Your task to perform on an android device: manage bookmarks in the chrome app Image 0: 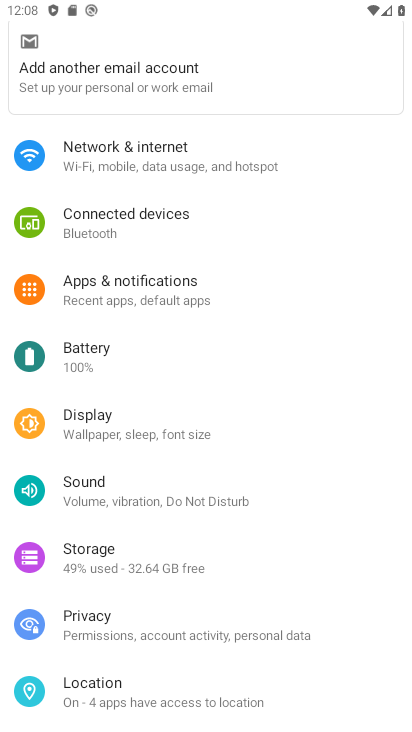
Step 0: press home button
Your task to perform on an android device: manage bookmarks in the chrome app Image 1: 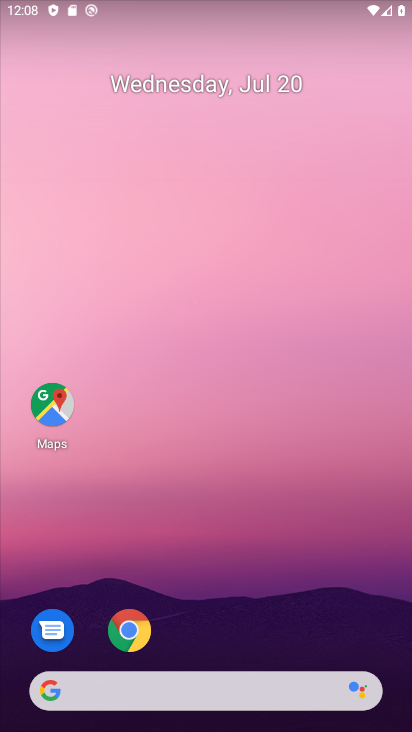
Step 1: click (126, 636)
Your task to perform on an android device: manage bookmarks in the chrome app Image 2: 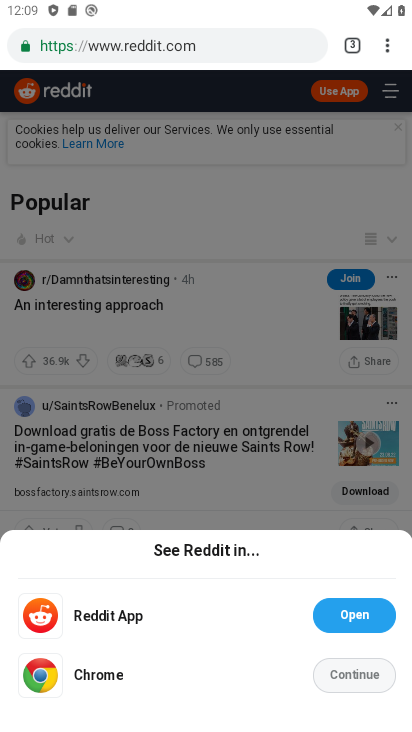
Step 2: click (385, 43)
Your task to perform on an android device: manage bookmarks in the chrome app Image 3: 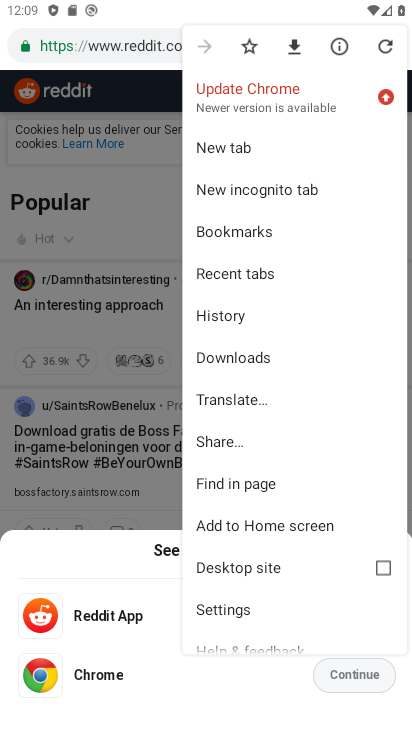
Step 3: click (238, 226)
Your task to perform on an android device: manage bookmarks in the chrome app Image 4: 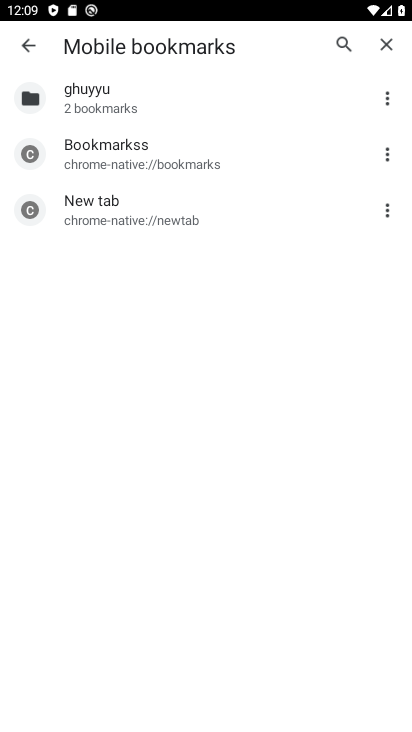
Step 4: click (389, 95)
Your task to perform on an android device: manage bookmarks in the chrome app Image 5: 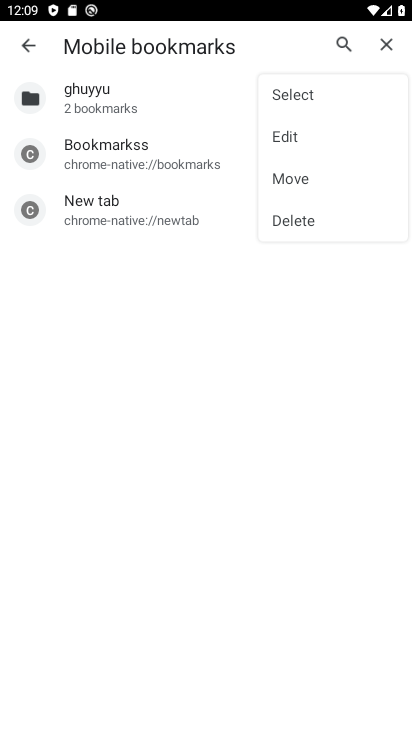
Step 5: click (303, 130)
Your task to perform on an android device: manage bookmarks in the chrome app Image 6: 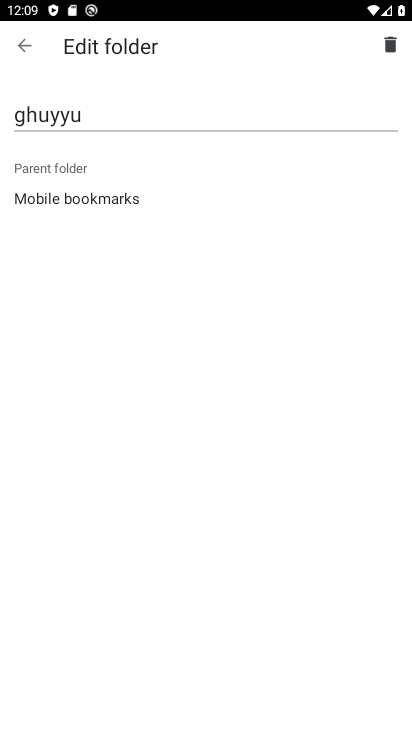
Step 6: task complete